Your task to perform on an android device: check storage Image 0: 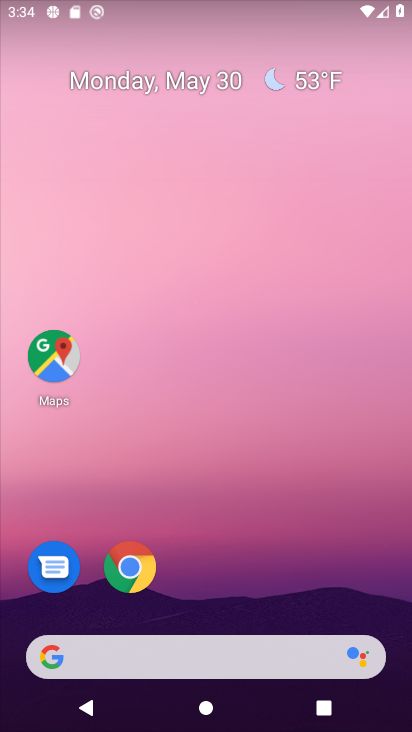
Step 0: drag from (273, 661) to (357, 17)
Your task to perform on an android device: check storage Image 1: 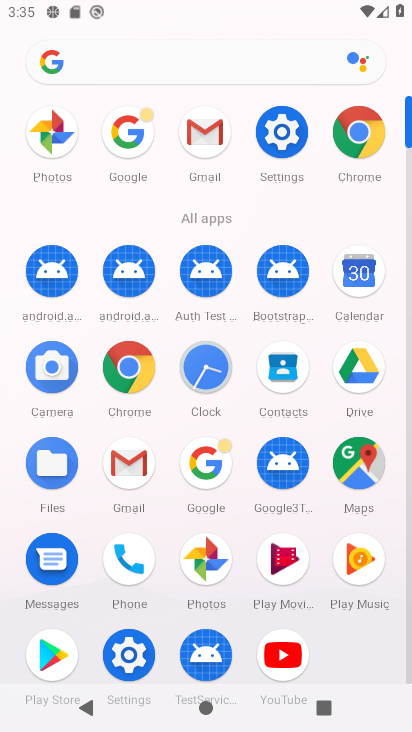
Step 1: click (278, 122)
Your task to perform on an android device: check storage Image 2: 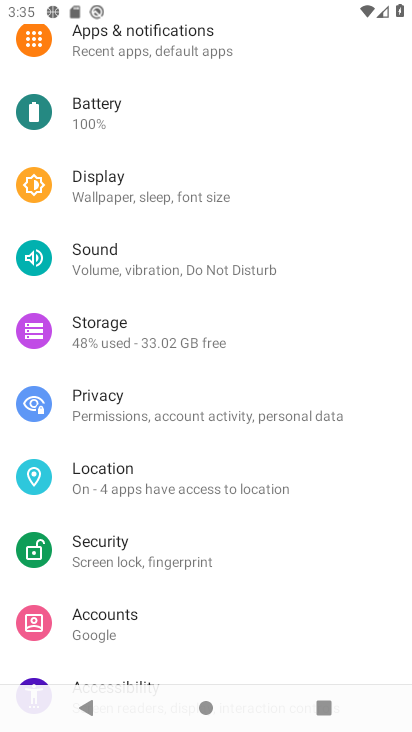
Step 2: click (173, 348)
Your task to perform on an android device: check storage Image 3: 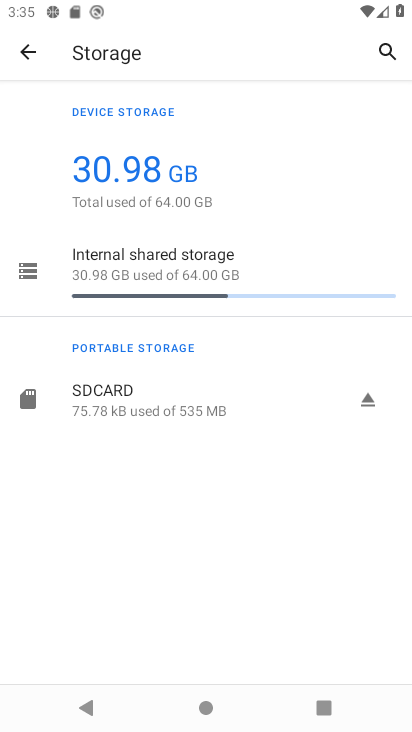
Step 3: task complete